Your task to perform on an android device: open chrome privacy settings Image 0: 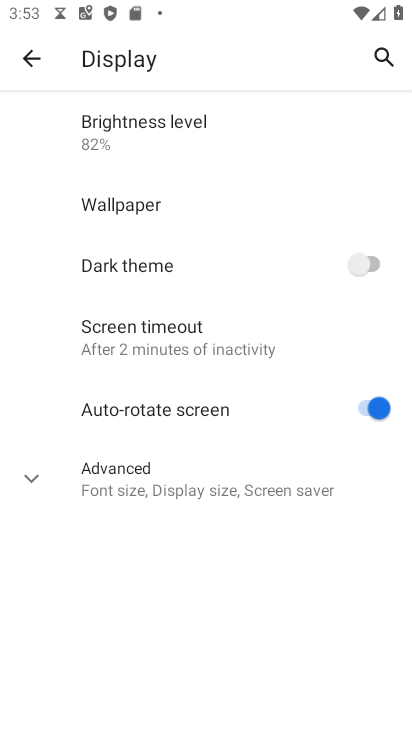
Step 0: press home button
Your task to perform on an android device: open chrome privacy settings Image 1: 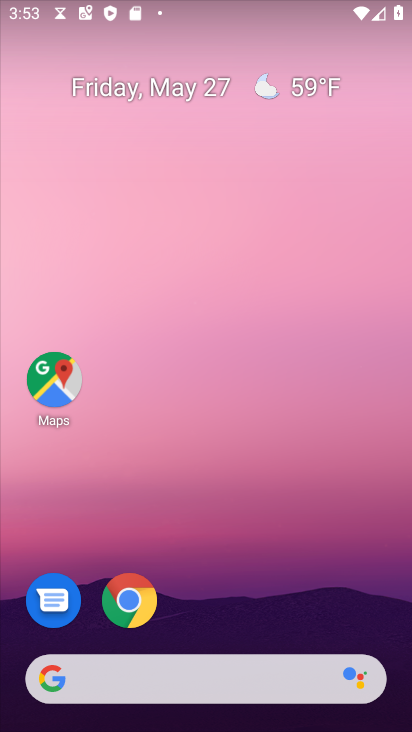
Step 1: click (131, 601)
Your task to perform on an android device: open chrome privacy settings Image 2: 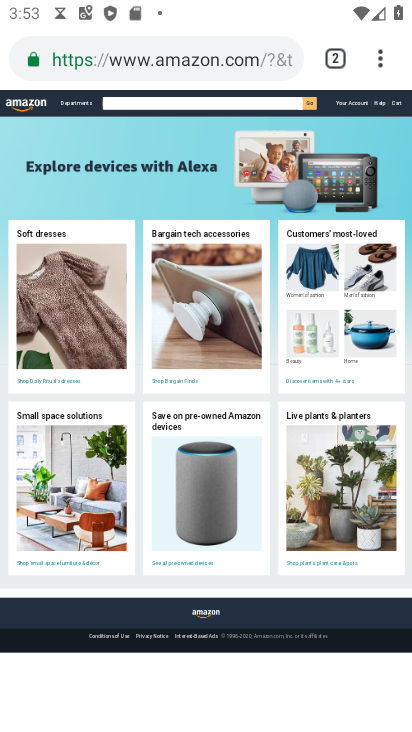
Step 2: click (381, 57)
Your task to perform on an android device: open chrome privacy settings Image 3: 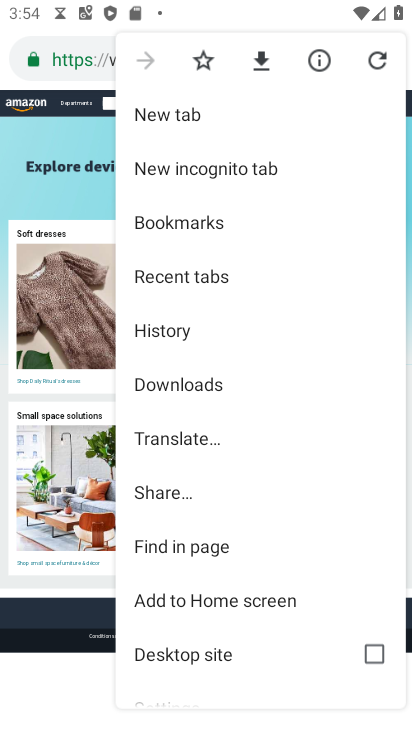
Step 3: drag from (211, 497) to (202, 397)
Your task to perform on an android device: open chrome privacy settings Image 4: 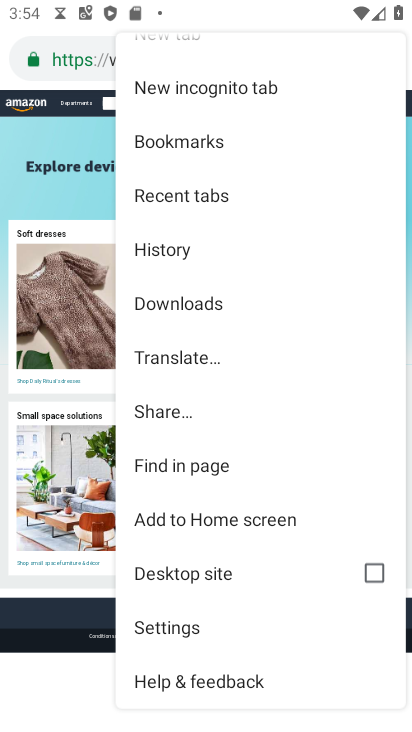
Step 4: click (165, 627)
Your task to perform on an android device: open chrome privacy settings Image 5: 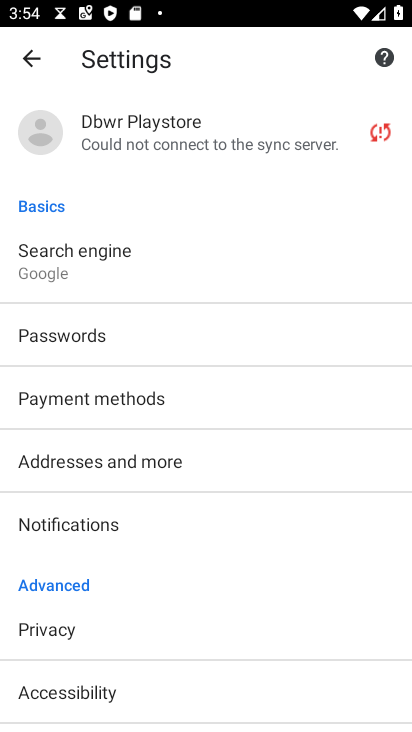
Step 5: drag from (96, 540) to (137, 386)
Your task to perform on an android device: open chrome privacy settings Image 6: 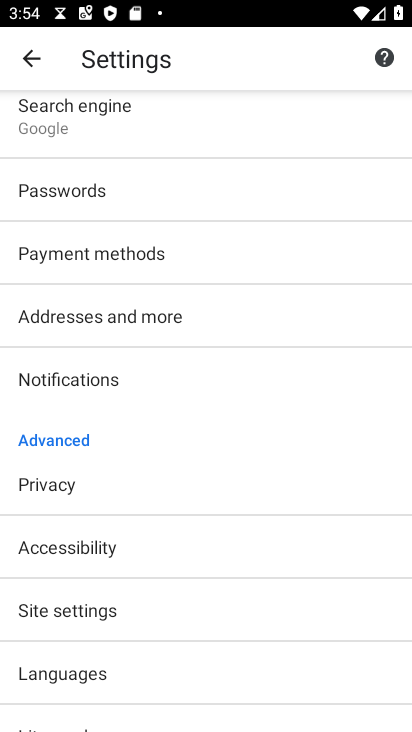
Step 6: drag from (53, 565) to (62, 442)
Your task to perform on an android device: open chrome privacy settings Image 7: 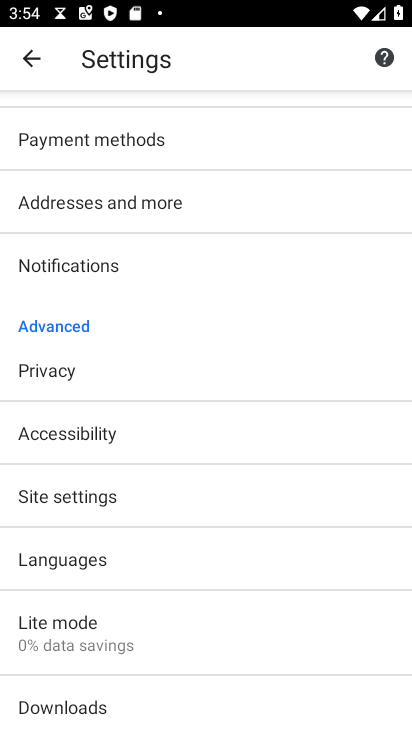
Step 7: drag from (71, 522) to (97, 431)
Your task to perform on an android device: open chrome privacy settings Image 8: 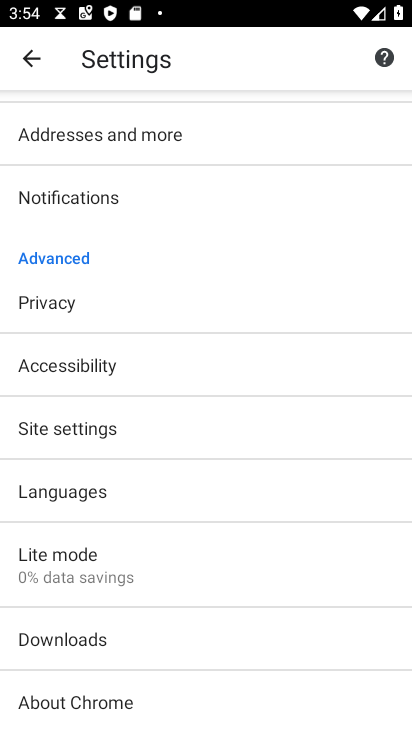
Step 8: click (51, 300)
Your task to perform on an android device: open chrome privacy settings Image 9: 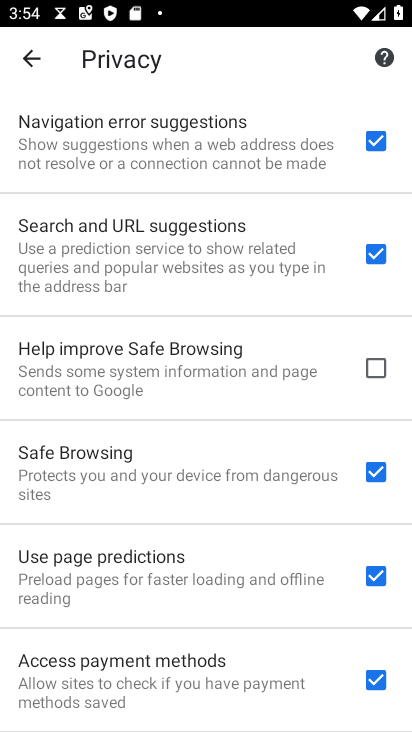
Step 9: task complete